Your task to perform on an android device: turn on wifi Image 0: 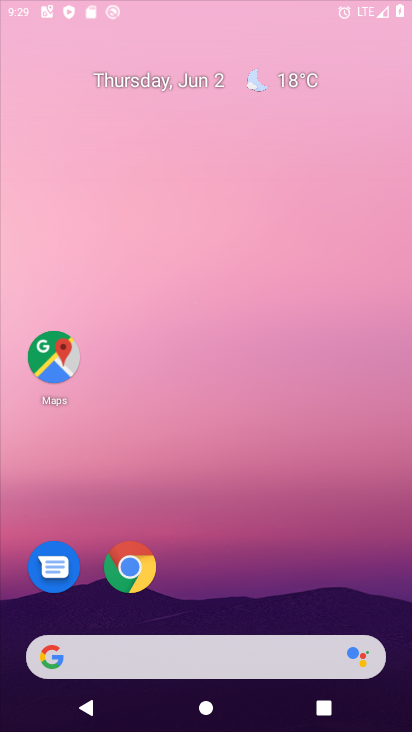
Step 0: press home button
Your task to perform on an android device: turn on wifi Image 1: 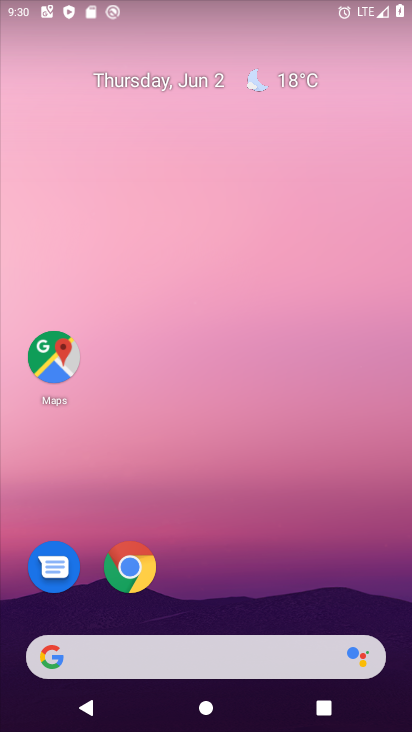
Step 1: drag from (183, 8) to (184, 536)
Your task to perform on an android device: turn on wifi Image 2: 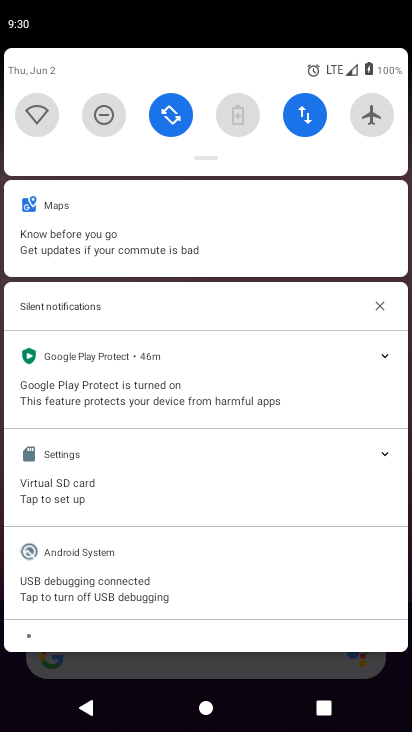
Step 2: click (33, 117)
Your task to perform on an android device: turn on wifi Image 3: 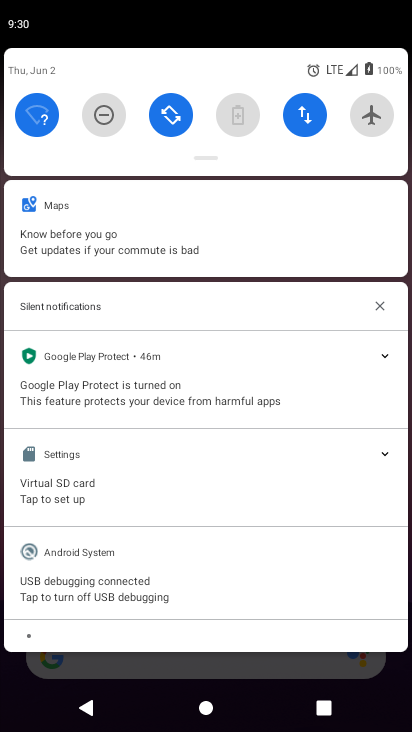
Step 3: task complete